Your task to perform on an android device: change the upload size in google photos Image 0: 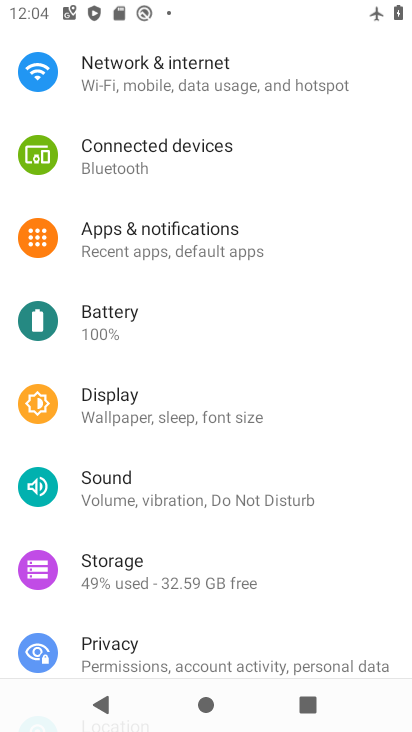
Step 0: press home button
Your task to perform on an android device: change the upload size in google photos Image 1: 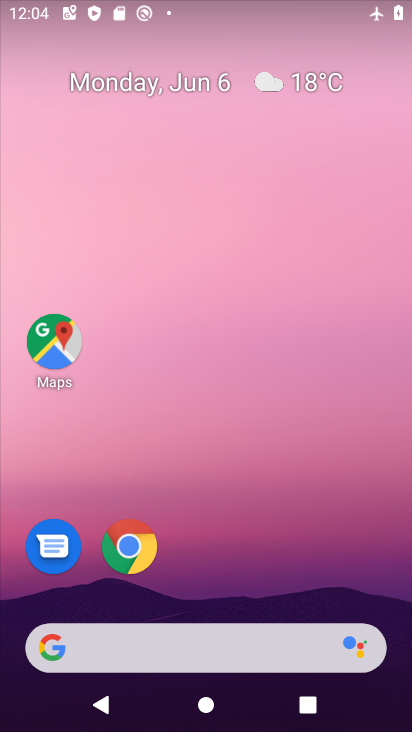
Step 1: drag from (307, 555) to (305, 169)
Your task to perform on an android device: change the upload size in google photos Image 2: 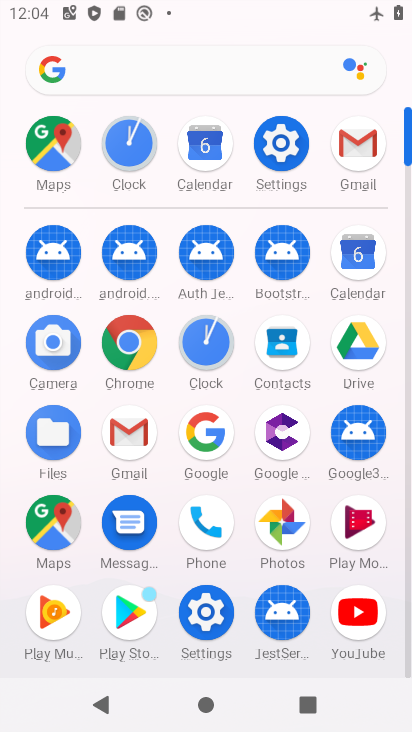
Step 2: click (263, 513)
Your task to perform on an android device: change the upload size in google photos Image 3: 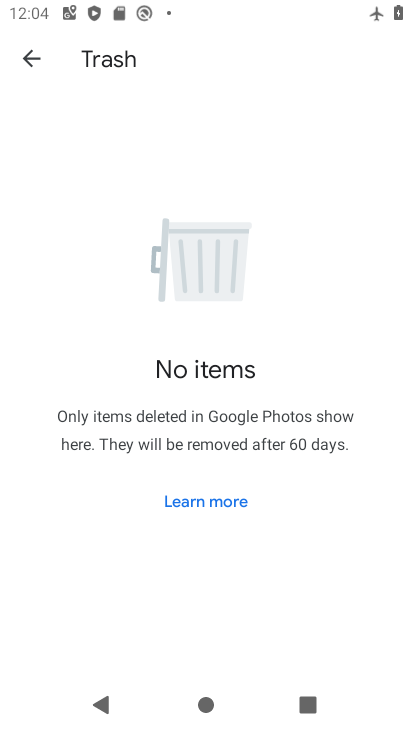
Step 3: click (21, 64)
Your task to perform on an android device: change the upload size in google photos Image 4: 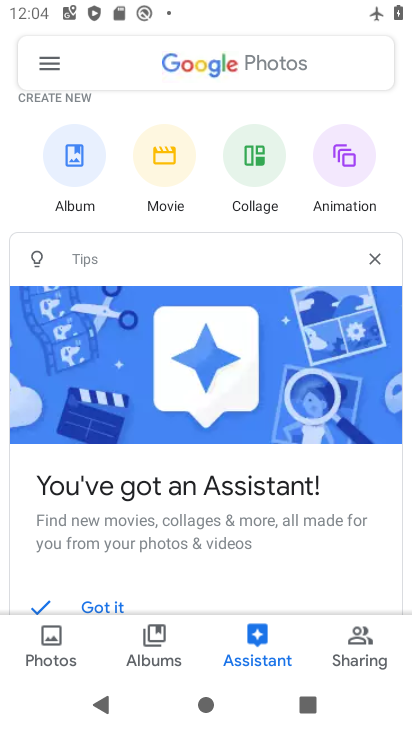
Step 4: click (37, 61)
Your task to perform on an android device: change the upload size in google photos Image 5: 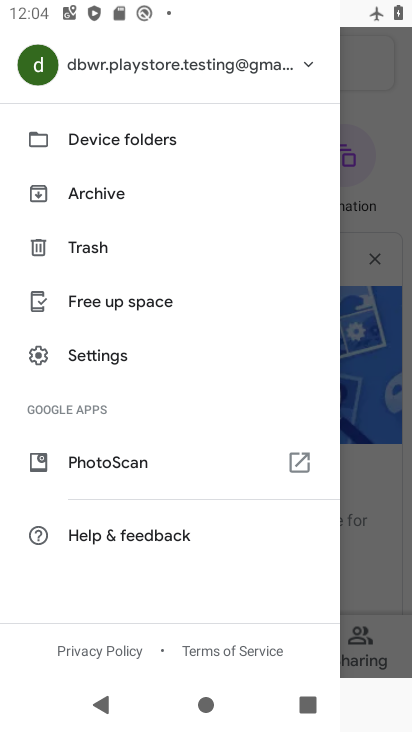
Step 5: click (106, 356)
Your task to perform on an android device: change the upload size in google photos Image 6: 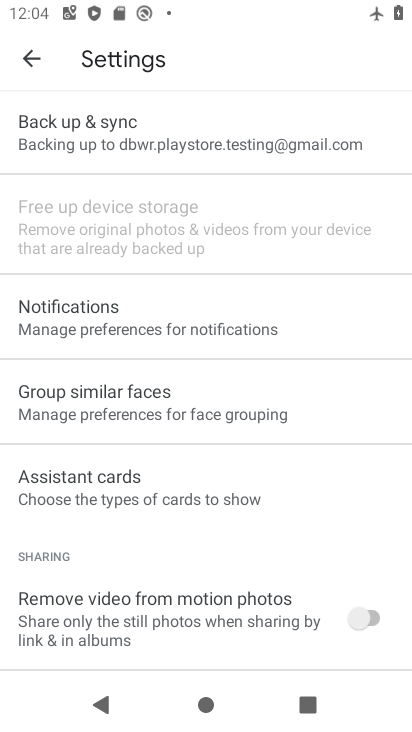
Step 6: click (149, 128)
Your task to perform on an android device: change the upload size in google photos Image 7: 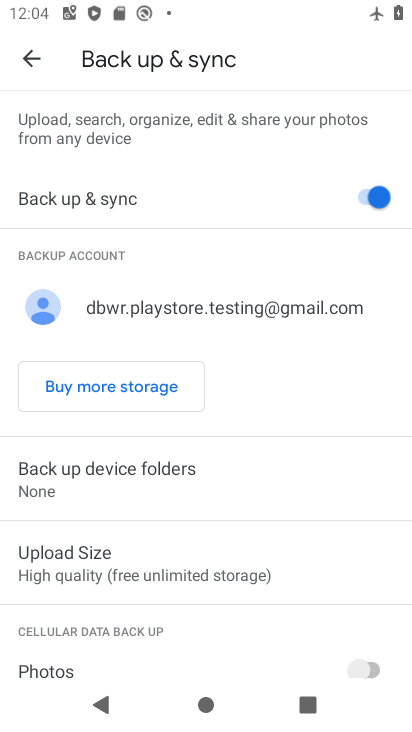
Step 7: click (75, 558)
Your task to perform on an android device: change the upload size in google photos Image 8: 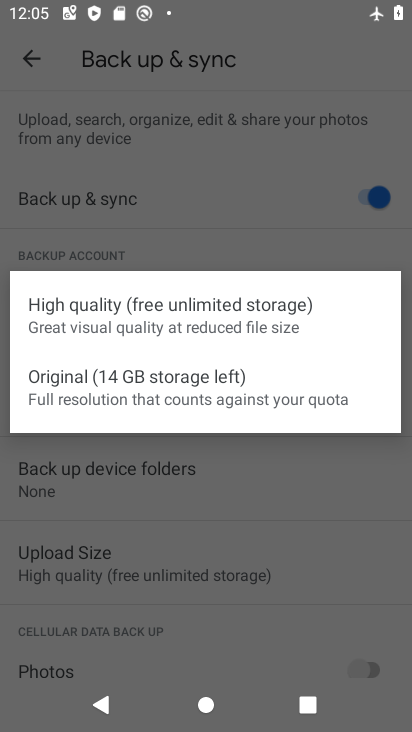
Step 8: click (104, 379)
Your task to perform on an android device: change the upload size in google photos Image 9: 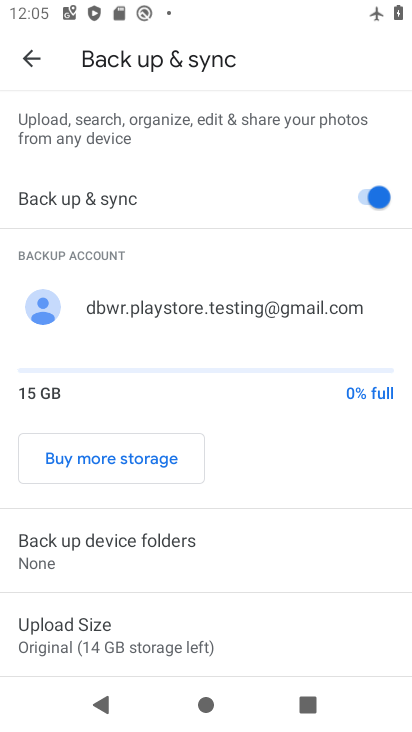
Step 9: task complete